Your task to perform on an android device: Open Youtube and go to "Your channel" Image 0: 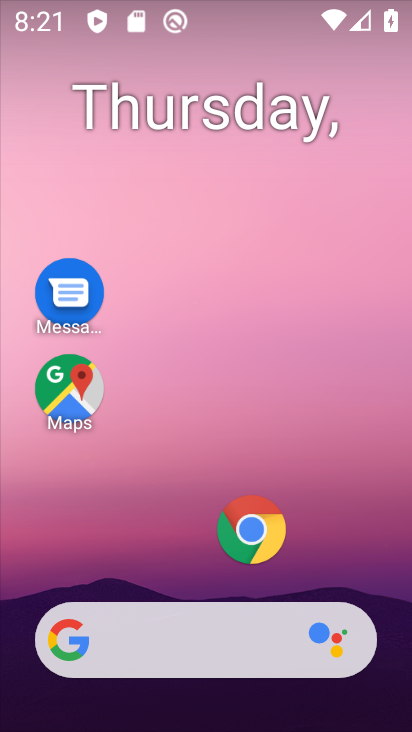
Step 0: drag from (158, 593) to (171, 45)
Your task to perform on an android device: Open Youtube and go to "Your channel" Image 1: 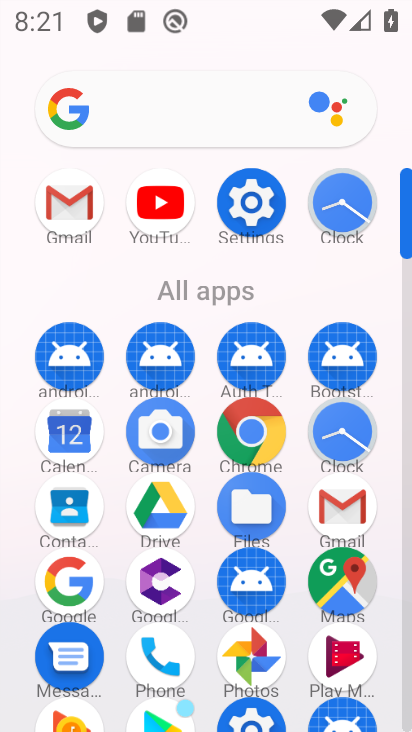
Step 1: click (158, 182)
Your task to perform on an android device: Open Youtube and go to "Your channel" Image 2: 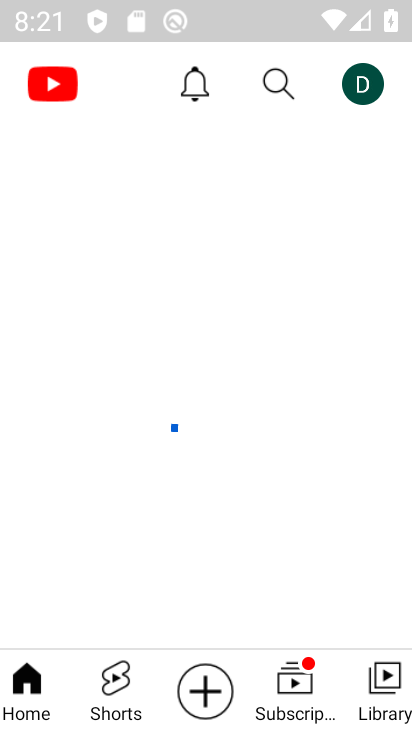
Step 2: click (268, 77)
Your task to perform on an android device: Open Youtube and go to "Your channel" Image 3: 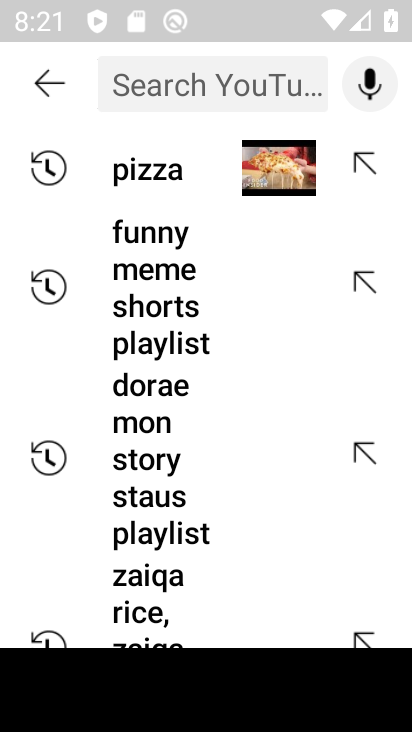
Step 3: type "your channel"
Your task to perform on an android device: Open Youtube and go to "Your channel" Image 4: 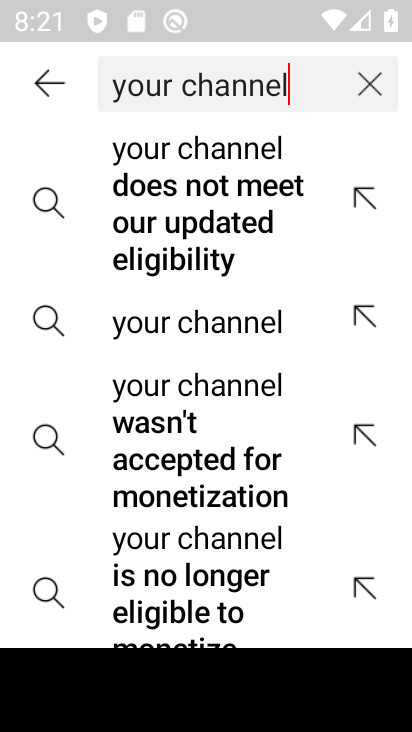
Step 4: click (149, 336)
Your task to perform on an android device: Open Youtube and go to "Your channel" Image 5: 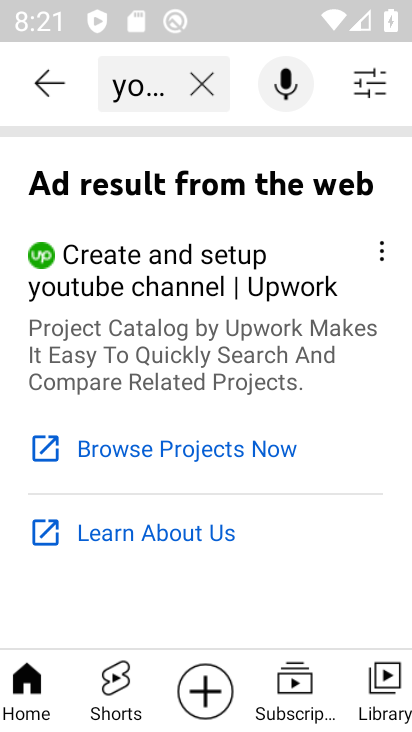
Step 5: task complete